Your task to perform on an android device: turn on the 12-hour format for clock Image 0: 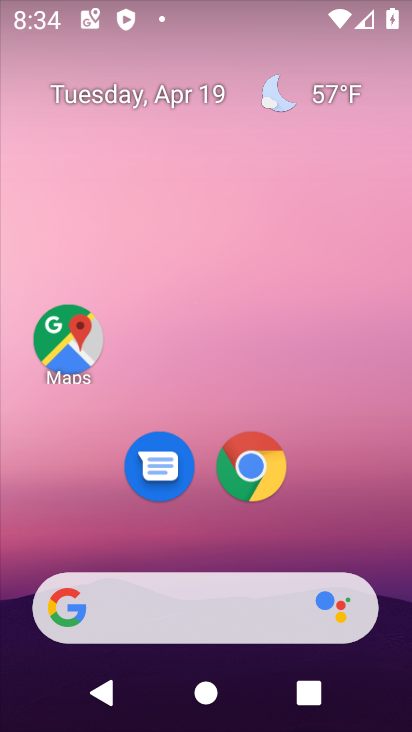
Step 0: drag from (206, 718) to (186, 87)
Your task to perform on an android device: turn on the 12-hour format for clock Image 1: 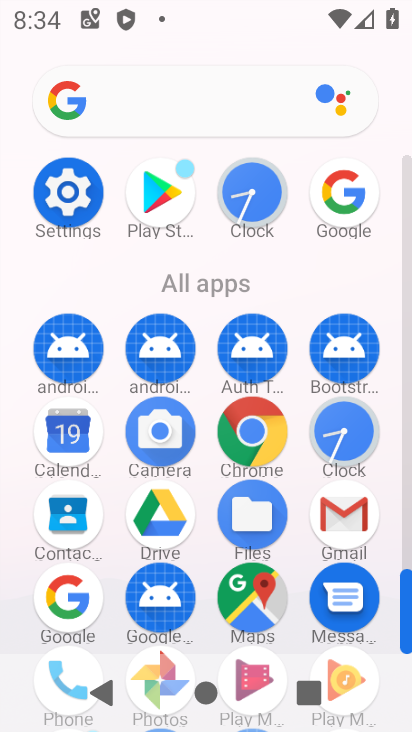
Step 1: click (338, 433)
Your task to perform on an android device: turn on the 12-hour format for clock Image 2: 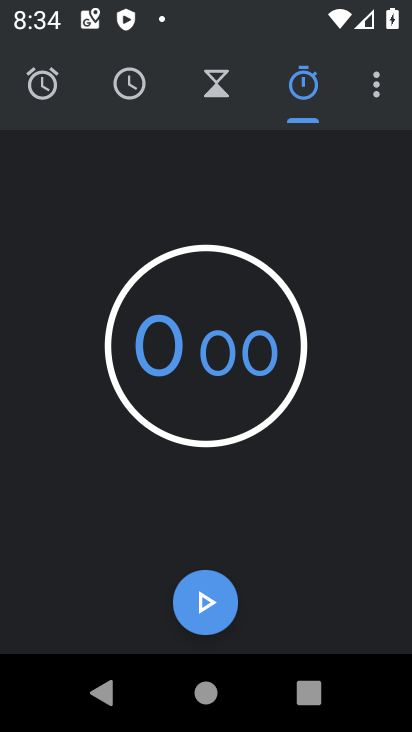
Step 2: click (376, 89)
Your task to perform on an android device: turn on the 12-hour format for clock Image 3: 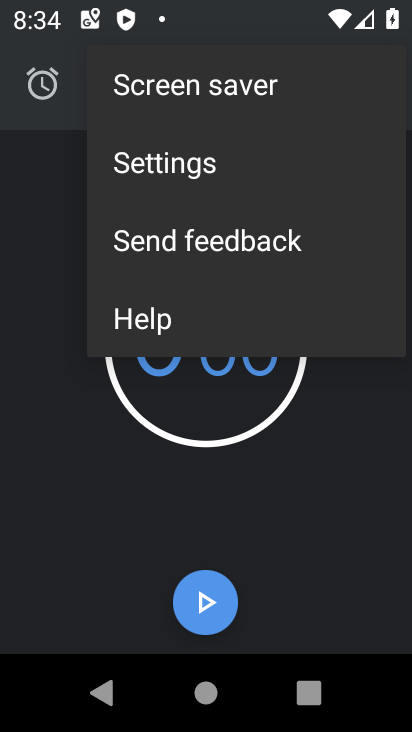
Step 3: click (189, 164)
Your task to perform on an android device: turn on the 12-hour format for clock Image 4: 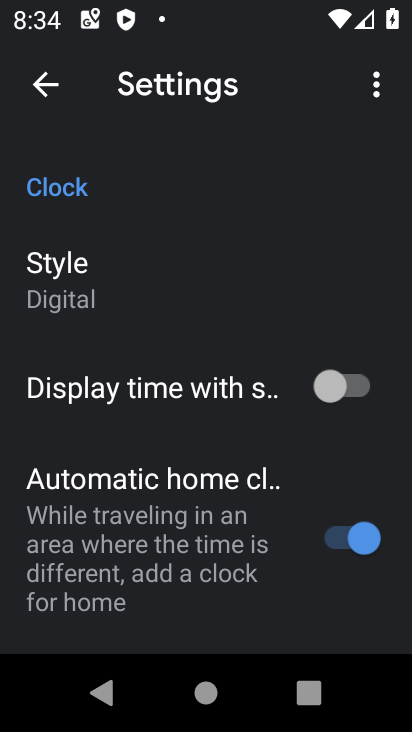
Step 4: drag from (158, 631) to (174, 185)
Your task to perform on an android device: turn on the 12-hour format for clock Image 5: 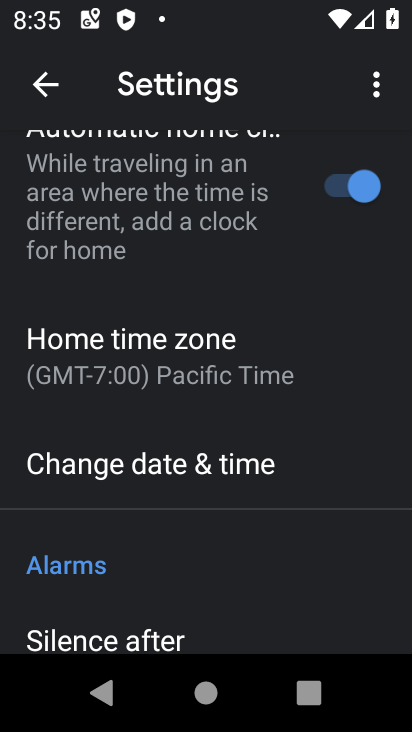
Step 5: click (154, 466)
Your task to perform on an android device: turn on the 12-hour format for clock Image 6: 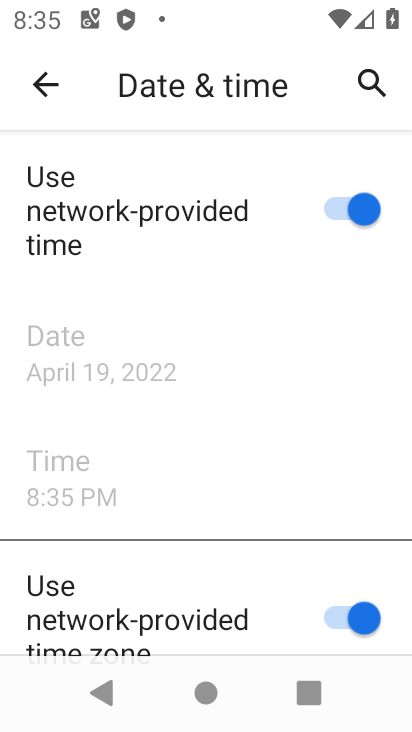
Step 6: task complete